Your task to perform on an android device: Go to internet settings Image 0: 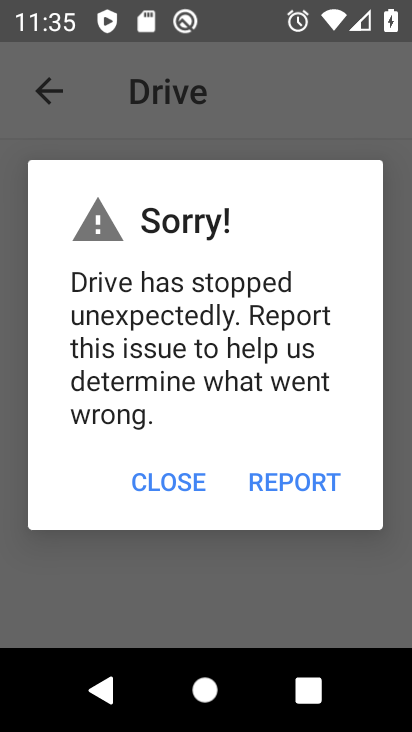
Step 0: press home button
Your task to perform on an android device: Go to internet settings Image 1: 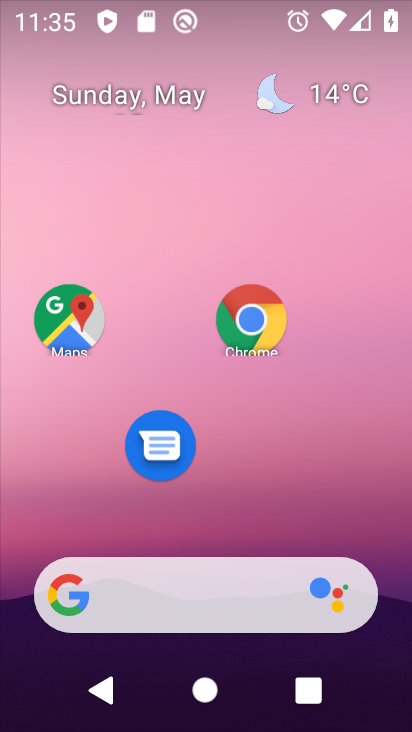
Step 1: drag from (223, 591) to (312, 132)
Your task to perform on an android device: Go to internet settings Image 2: 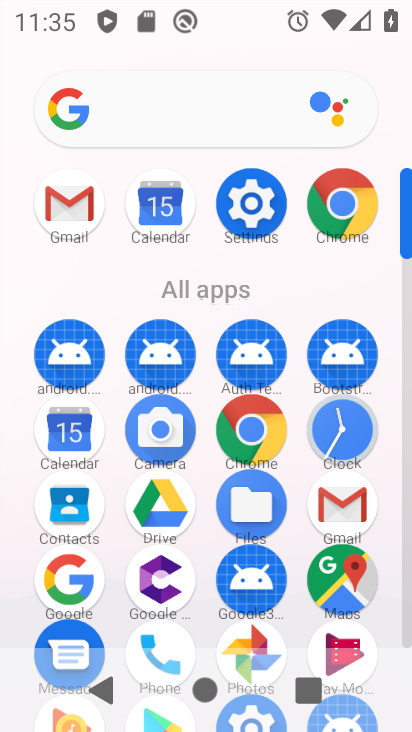
Step 2: click (259, 206)
Your task to perform on an android device: Go to internet settings Image 3: 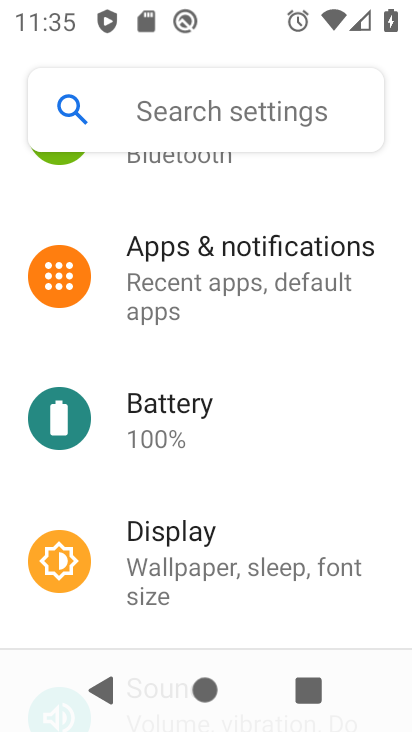
Step 3: drag from (309, 185) to (274, 586)
Your task to perform on an android device: Go to internet settings Image 4: 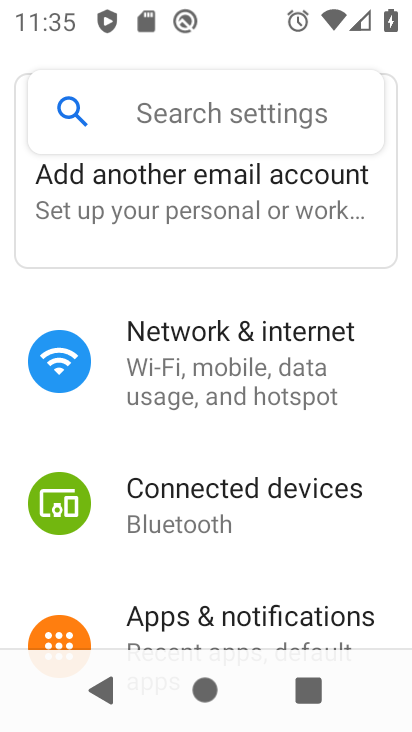
Step 4: click (261, 357)
Your task to perform on an android device: Go to internet settings Image 5: 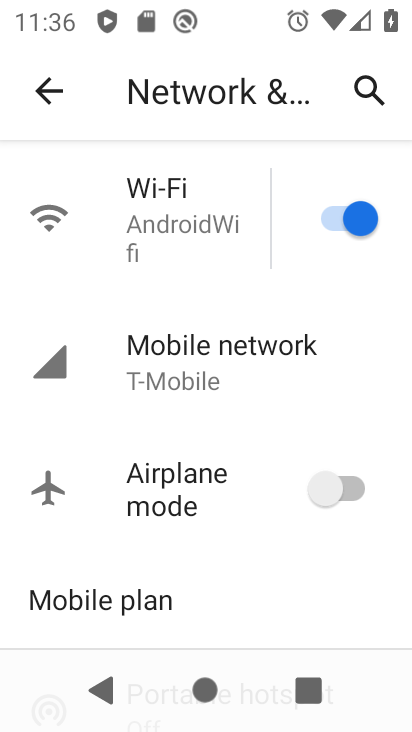
Step 5: task complete